Your task to perform on an android device: Search for the best 4K TV Image 0: 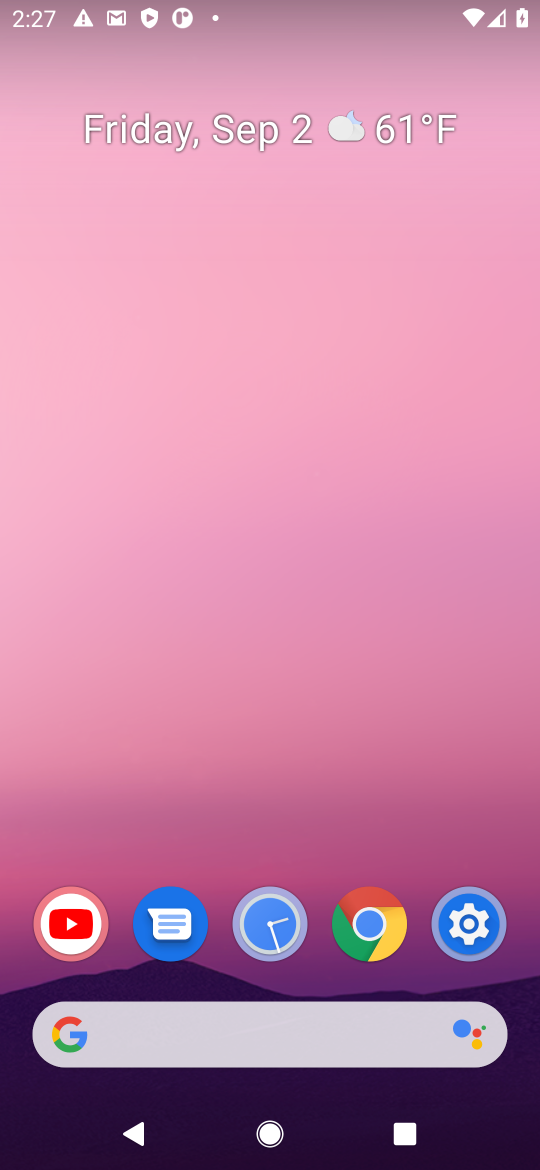
Step 0: press home button
Your task to perform on an android device: Search for the best 4K TV Image 1: 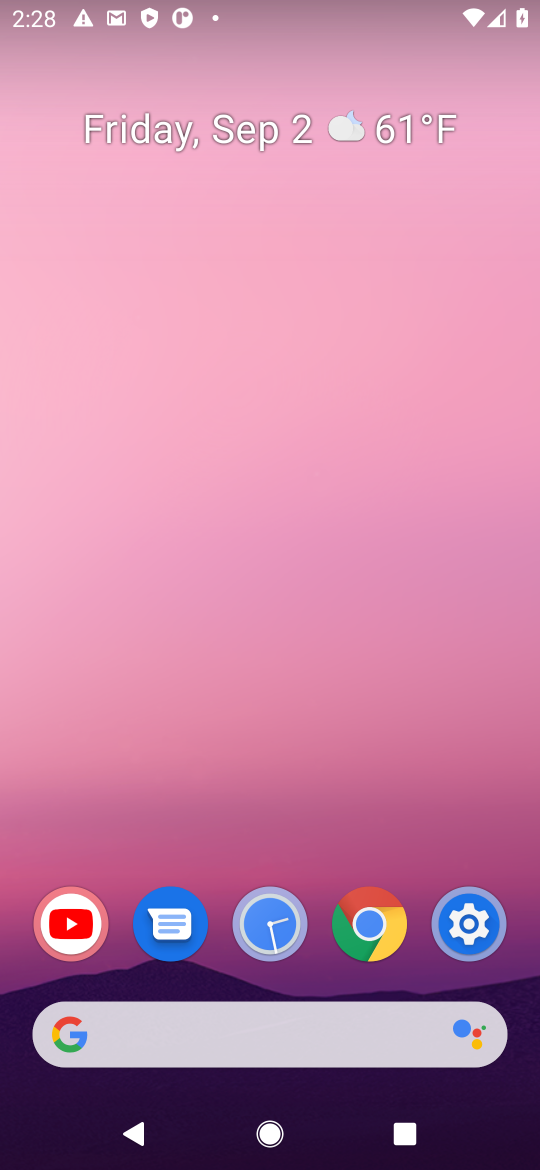
Step 1: click (366, 1048)
Your task to perform on an android device: Search for the best 4K TV Image 2: 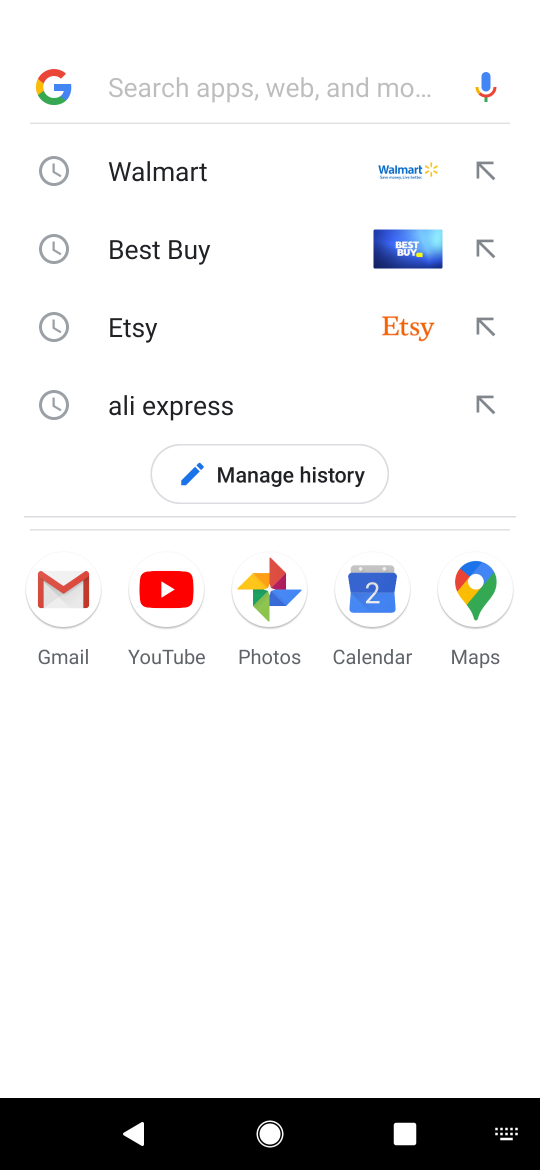
Step 2: type "best 4k tv"
Your task to perform on an android device: Search for the best 4K TV Image 3: 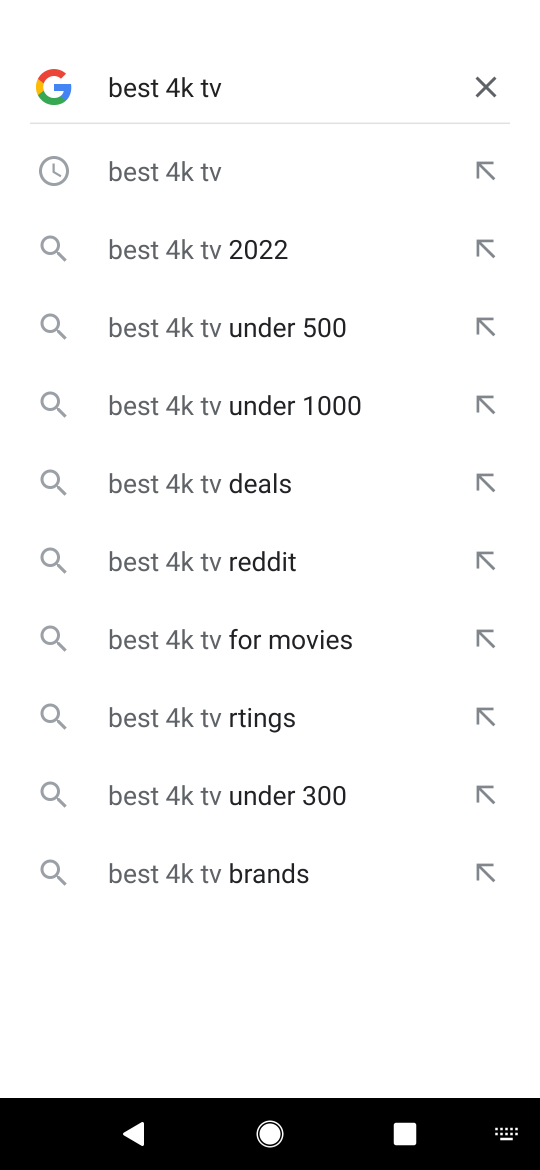
Step 3: click (229, 179)
Your task to perform on an android device: Search for the best 4K TV Image 4: 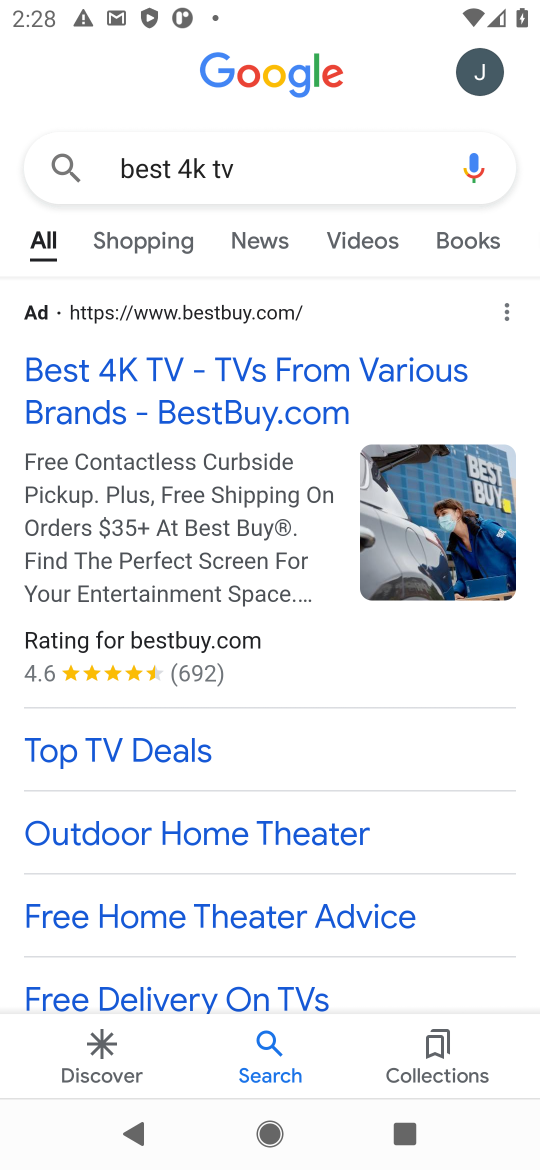
Step 4: click (251, 390)
Your task to perform on an android device: Search for the best 4K TV Image 5: 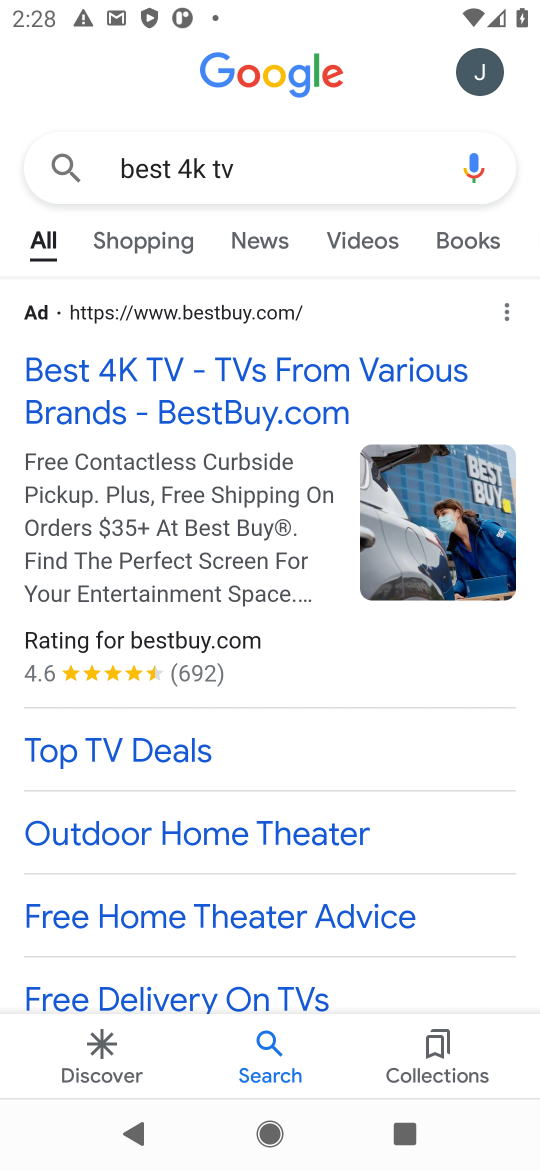
Step 5: click (228, 410)
Your task to perform on an android device: Search for the best 4K TV Image 6: 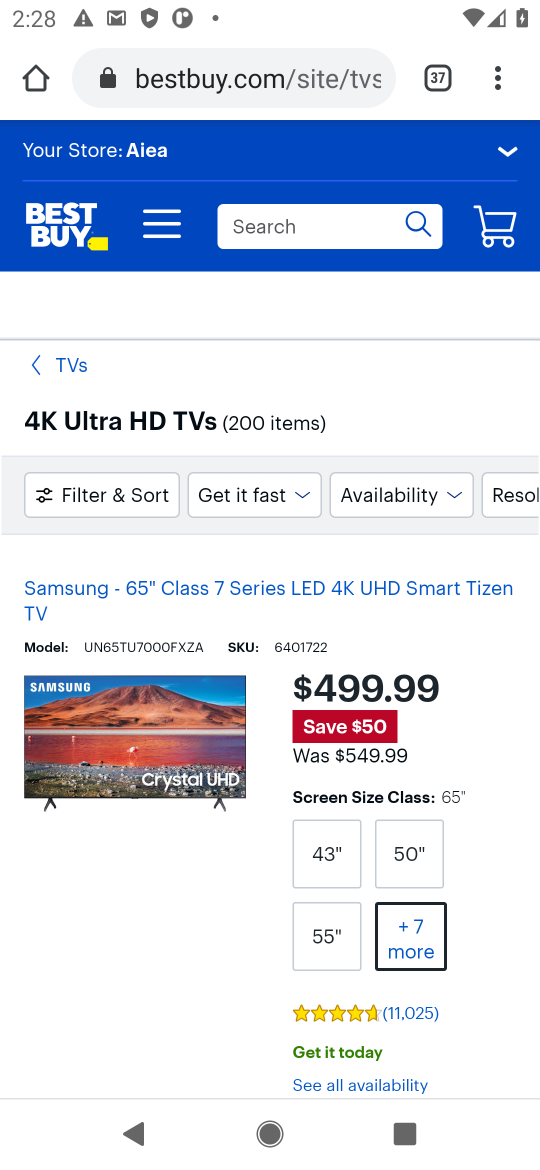
Step 6: task complete